Your task to perform on an android device: Open accessibility settings Image 0: 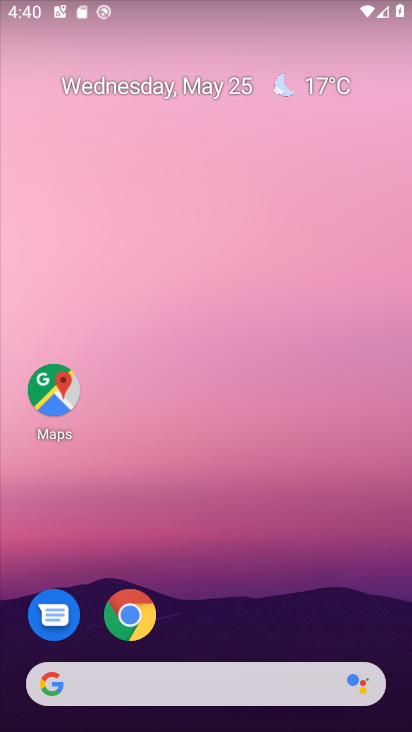
Step 0: drag from (274, 485) to (216, 71)
Your task to perform on an android device: Open accessibility settings Image 1: 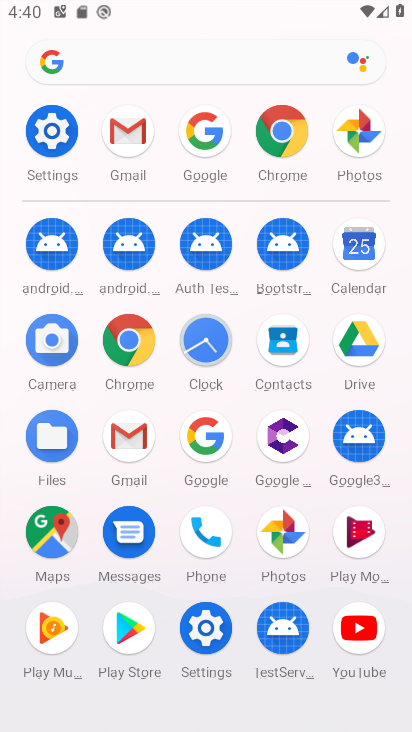
Step 1: click (57, 148)
Your task to perform on an android device: Open accessibility settings Image 2: 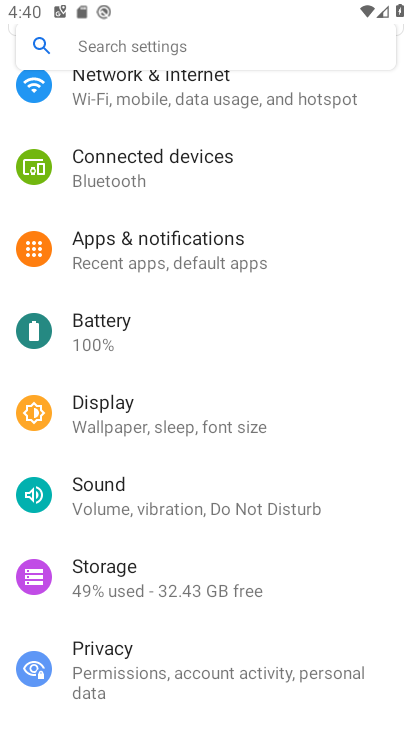
Step 2: drag from (211, 629) to (257, 133)
Your task to perform on an android device: Open accessibility settings Image 3: 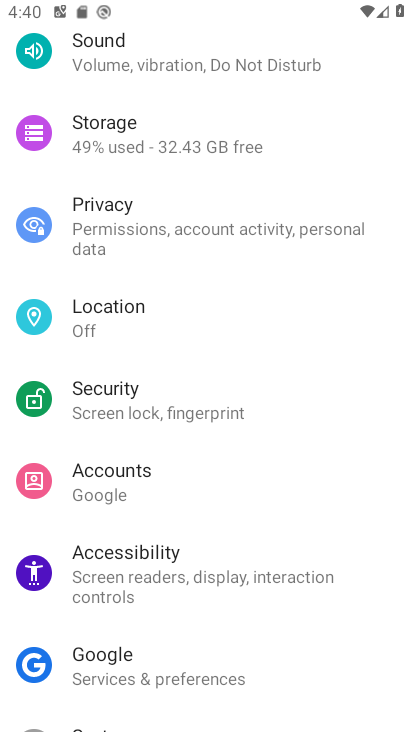
Step 3: click (166, 569)
Your task to perform on an android device: Open accessibility settings Image 4: 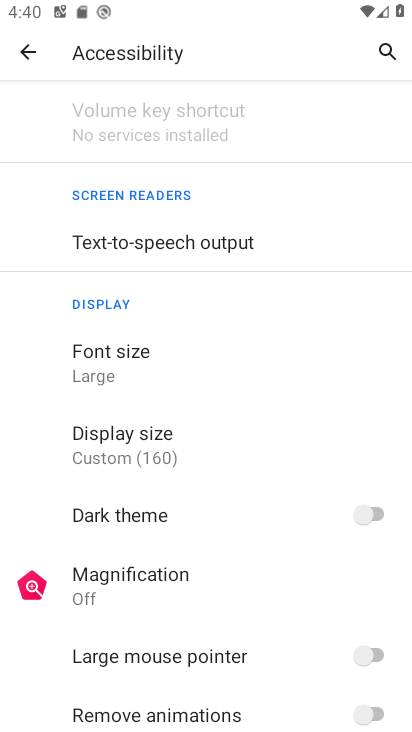
Step 4: task complete